Your task to perform on an android device: change timer sound Image 0: 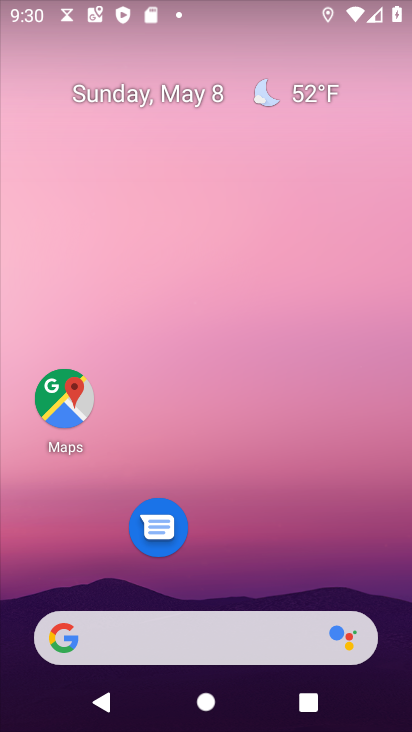
Step 0: drag from (238, 515) to (238, 25)
Your task to perform on an android device: change timer sound Image 1: 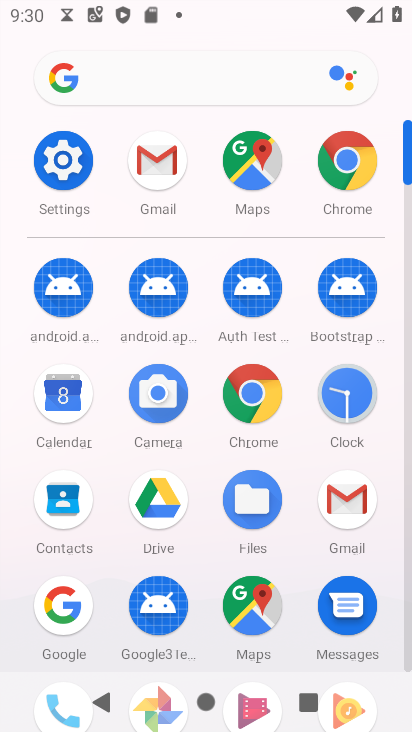
Step 1: click (350, 396)
Your task to perform on an android device: change timer sound Image 2: 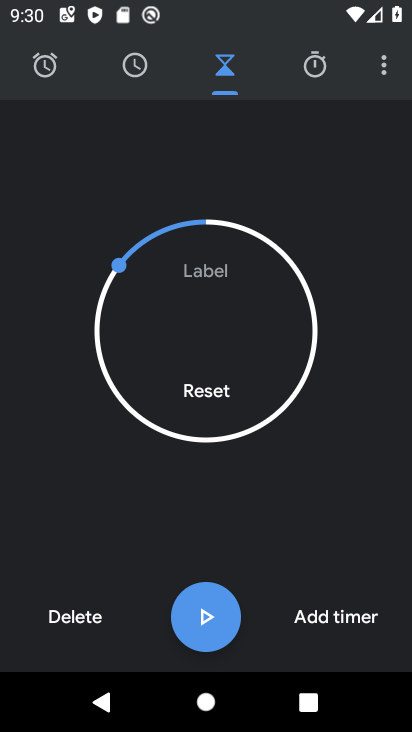
Step 2: click (386, 67)
Your task to perform on an android device: change timer sound Image 3: 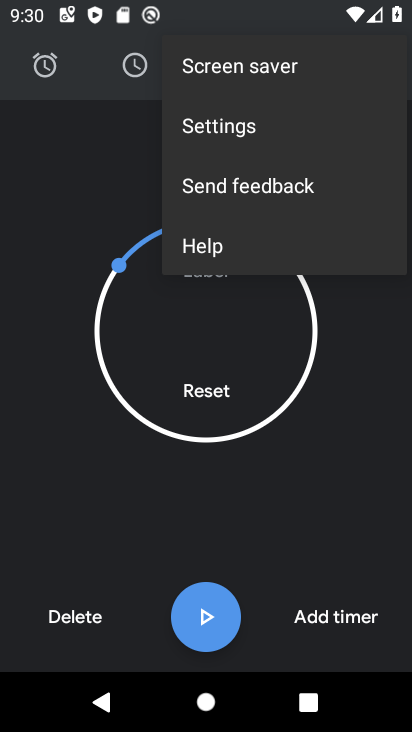
Step 3: click (243, 122)
Your task to perform on an android device: change timer sound Image 4: 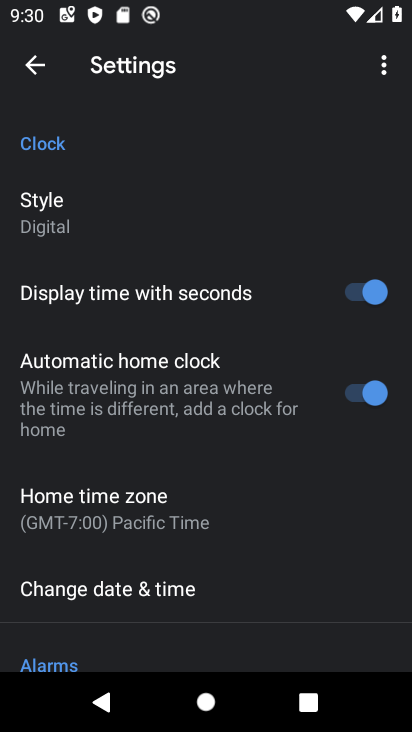
Step 4: drag from (214, 569) to (247, 337)
Your task to perform on an android device: change timer sound Image 5: 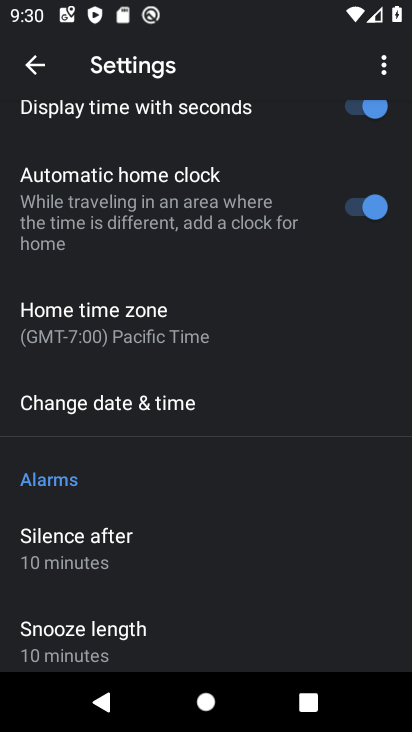
Step 5: drag from (174, 532) to (252, 369)
Your task to perform on an android device: change timer sound Image 6: 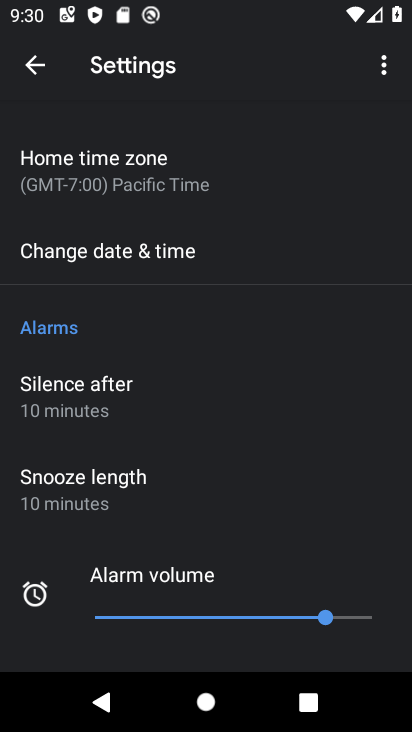
Step 6: drag from (183, 506) to (277, 353)
Your task to perform on an android device: change timer sound Image 7: 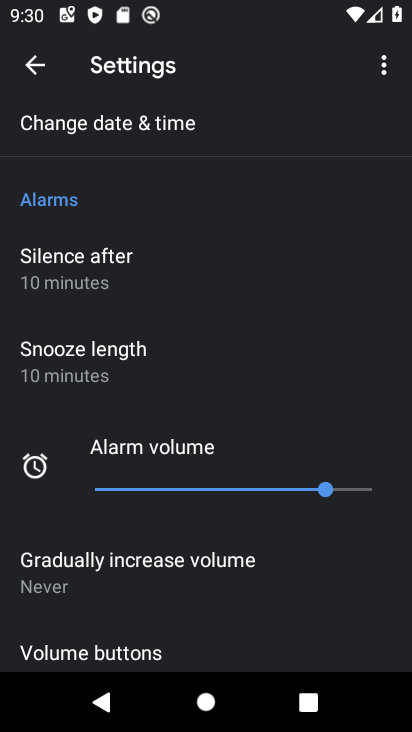
Step 7: drag from (190, 518) to (281, 357)
Your task to perform on an android device: change timer sound Image 8: 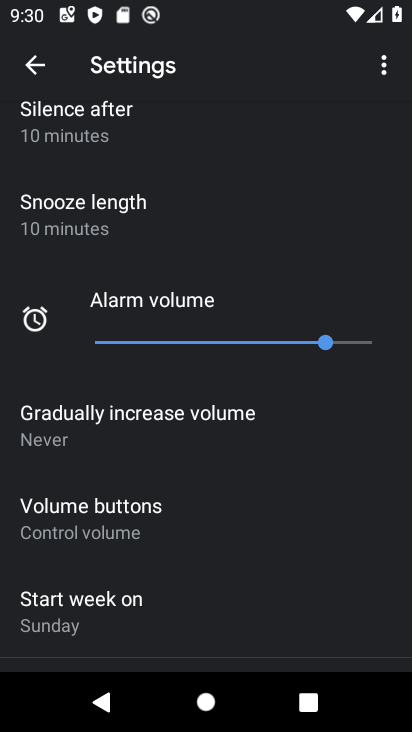
Step 8: drag from (210, 484) to (283, 342)
Your task to perform on an android device: change timer sound Image 9: 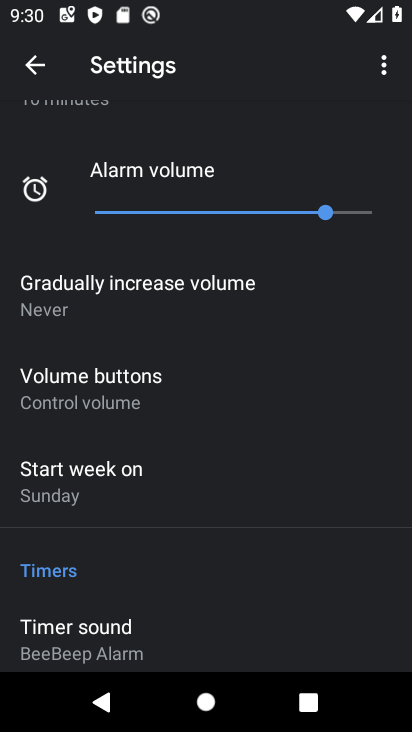
Step 9: drag from (184, 578) to (296, 417)
Your task to perform on an android device: change timer sound Image 10: 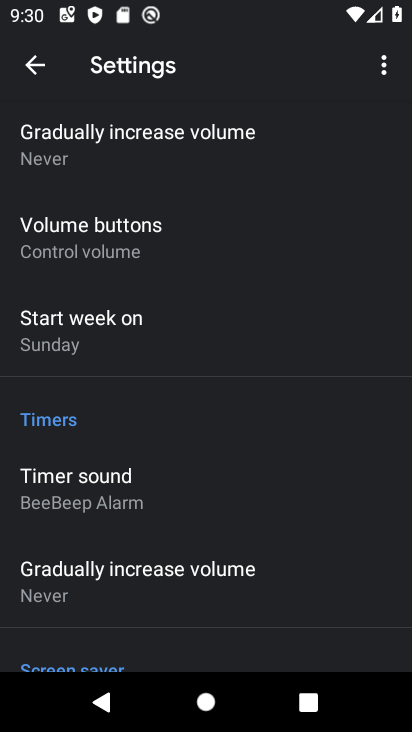
Step 10: drag from (181, 531) to (242, 404)
Your task to perform on an android device: change timer sound Image 11: 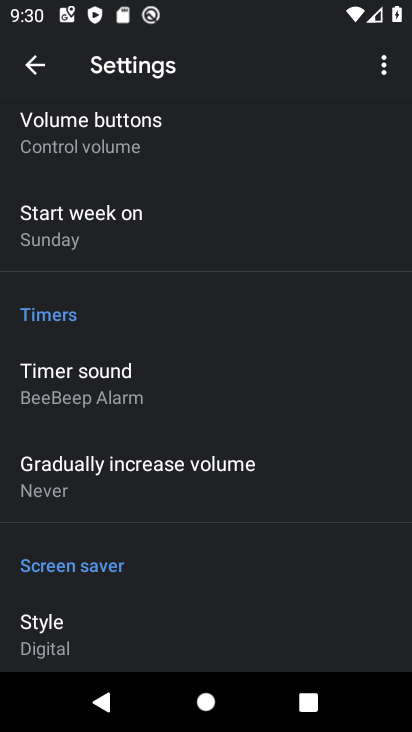
Step 11: click (133, 387)
Your task to perform on an android device: change timer sound Image 12: 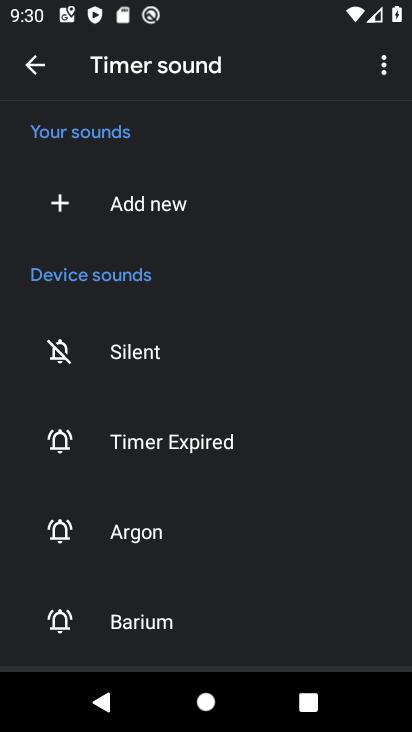
Step 12: drag from (174, 558) to (271, 388)
Your task to perform on an android device: change timer sound Image 13: 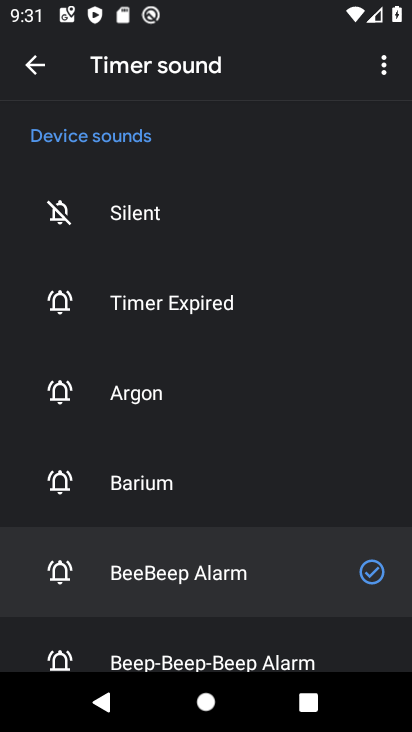
Step 13: click (149, 384)
Your task to perform on an android device: change timer sound Image 14: 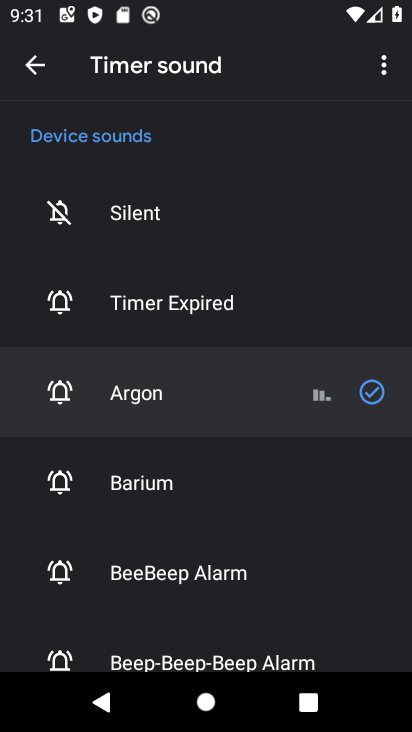
Step 14: task complete